Your task to perform on an android device: turn on translation in the chrome app Image 0: 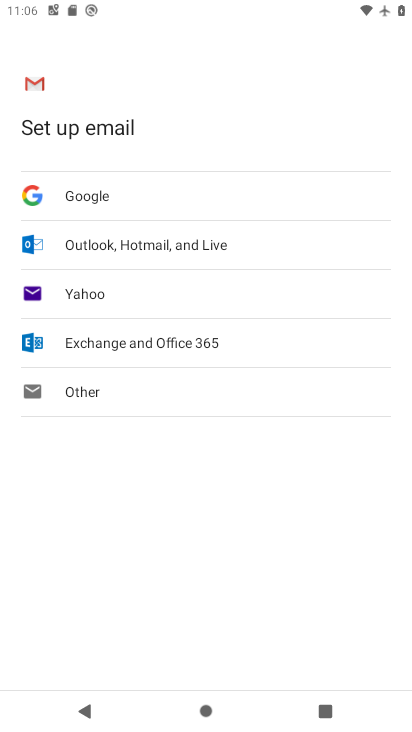
Step 0: press home button
Your task to perform on an android device: turn on translation in the chrome app Image 1: 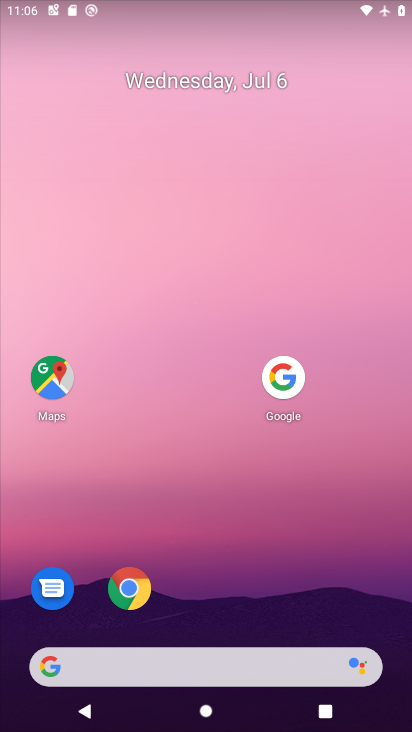
Step 1: click (127, 589)
Your task to perform on an android device: turn on translation in the chrome app Image 2: 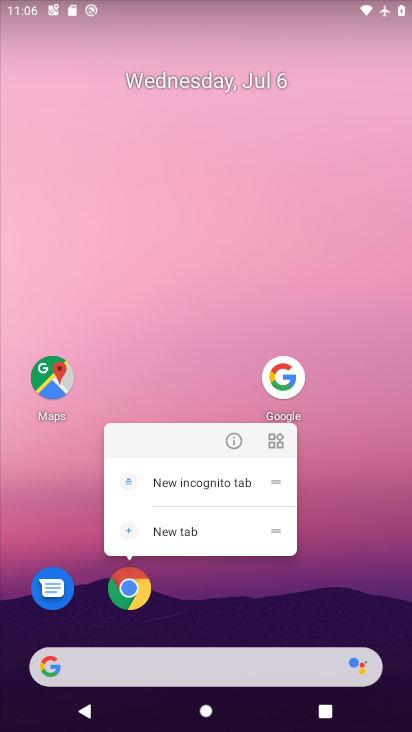
Step 2: click (127, 589)
Your task to perform on an android device: turn on translation in the chrome app Image 3: 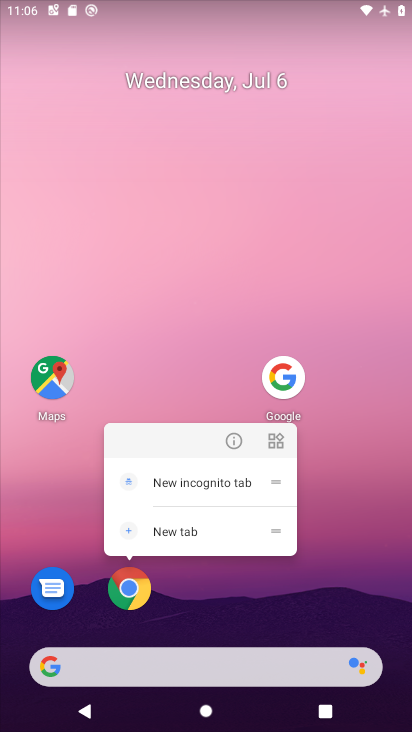
Step 3: click (127, 587)
Your task to perform on an android device: turn on translation in the chrome app Image 4: 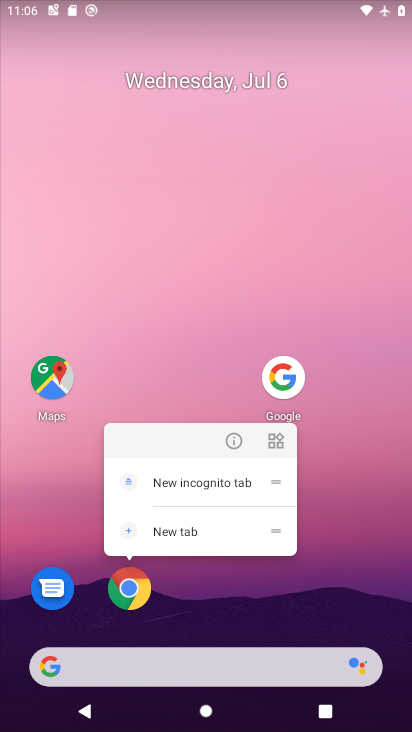
Step 4: click (127, 591)
Your task to perform on an android device: turn on translation in the chrome app Image 5: 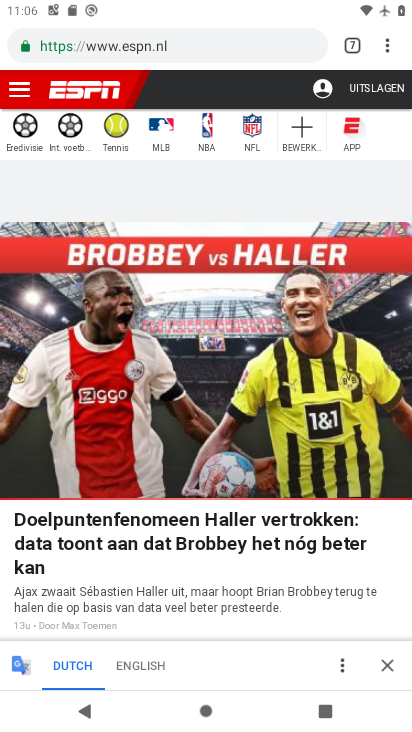
Step 5: click (384, 56)
Your task to perform on an android device: turn on translation in the chrome app Image 6: 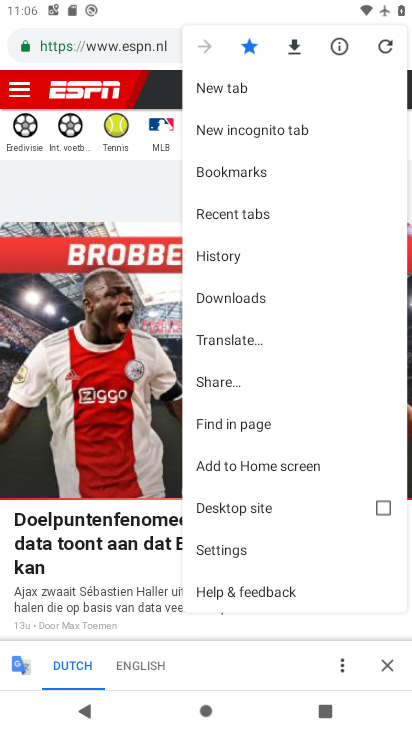
Step 6: click (232, 551)
Your task to perform on an android device: turn on translation in the chrome app Image 7: 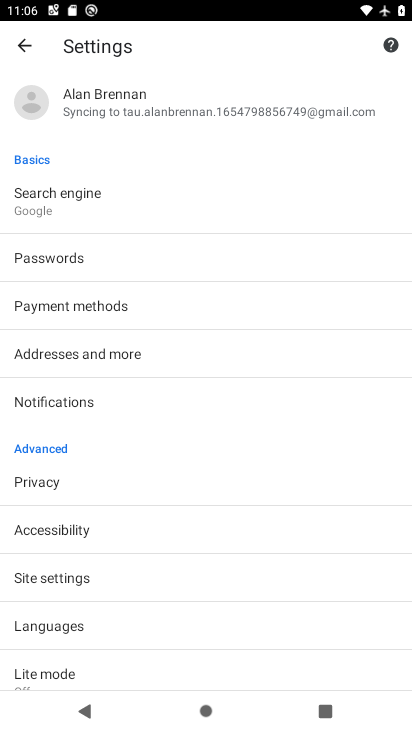
Step 7: drag from (122, 642) to (185, 418)
Your task to perform on an android device: turn on translation in the chrome app Image 8: 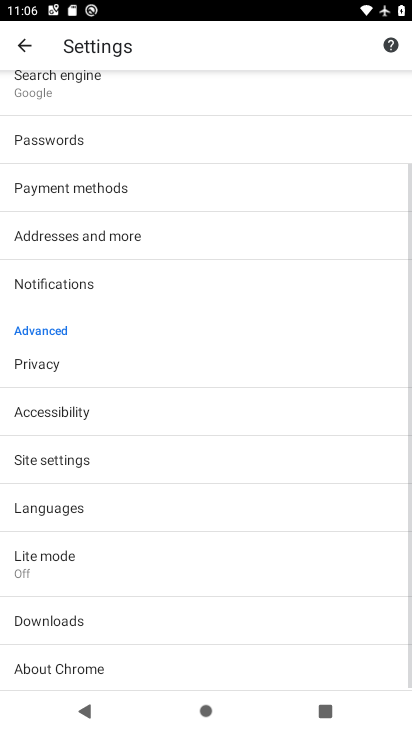
Step 8: click (79, 509)
Your task to perform on an android device: turn on translation in the chrome app Image 9: 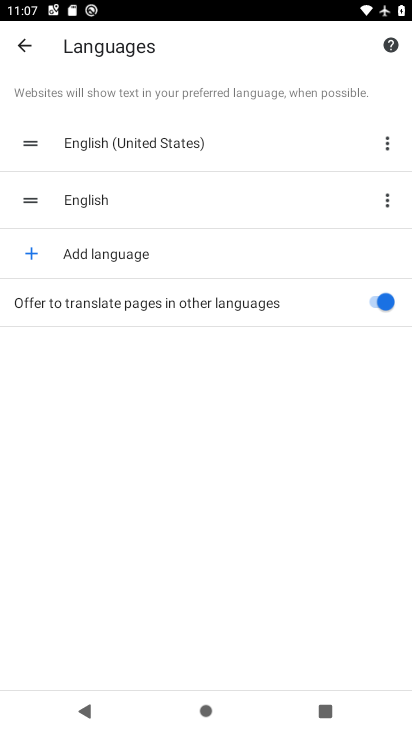
Step 9: task complete